Your task to perform on an android device: Open Yahoo.com Image 0: 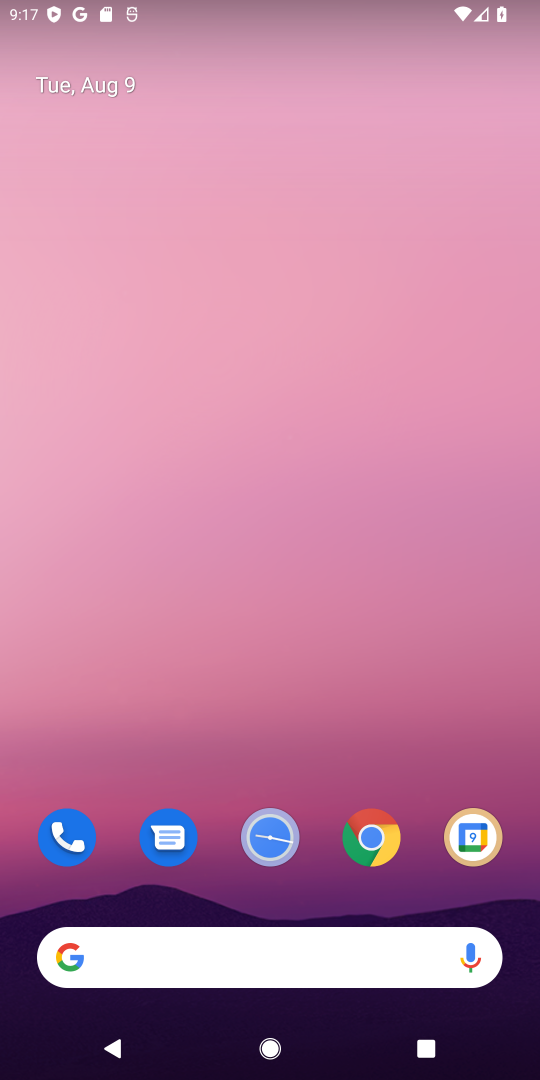
Step 0: click (374, 832)
Your task to perform on an android device: Open Yahoo.com Image 1: 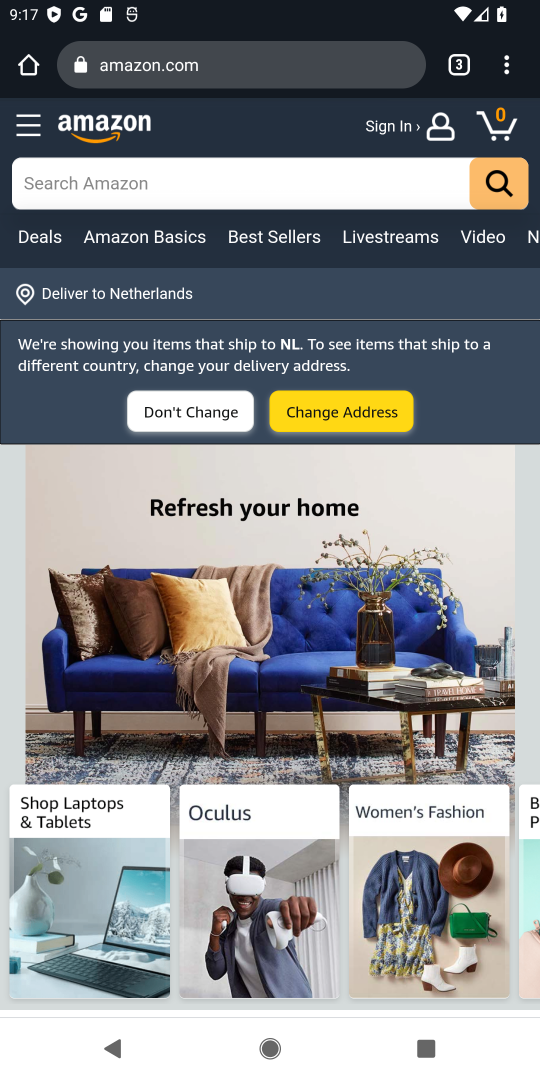
Step 1: click (508, 74)
Your task to perform on an android device: Open Yahoo.com Image 2: 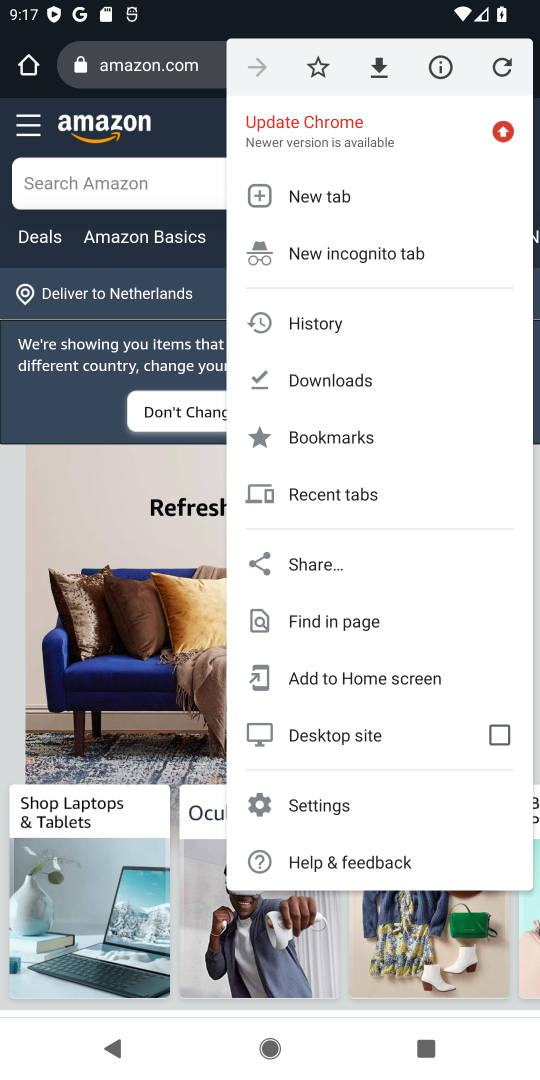
Step 2: click (326, 189)
Your task to perform on an android device: Open Yahoo.com Image 3: 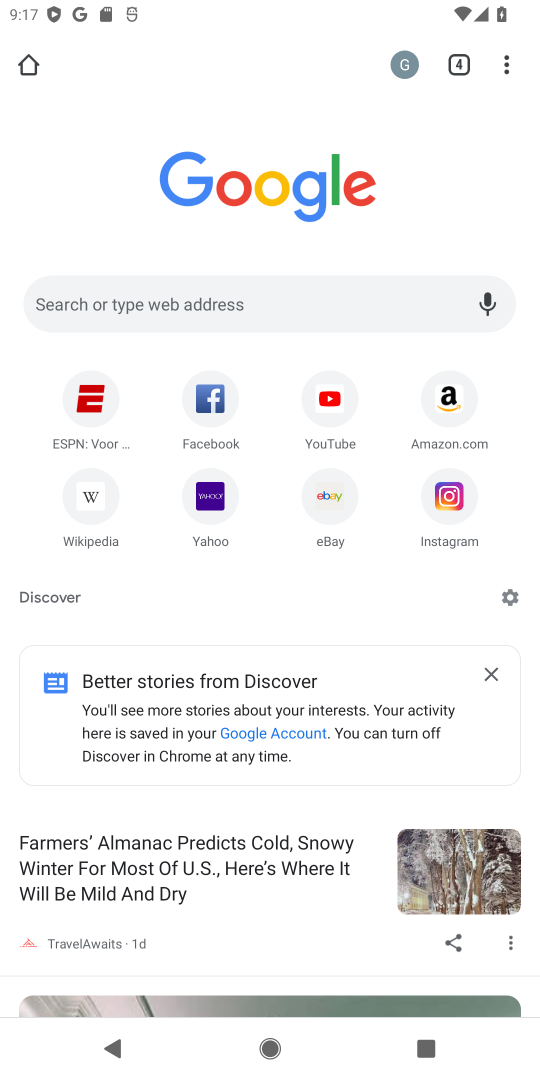
Step 3: click (199, 494)
Your task to perform on an android device: Open Yahoo.com Image 4: 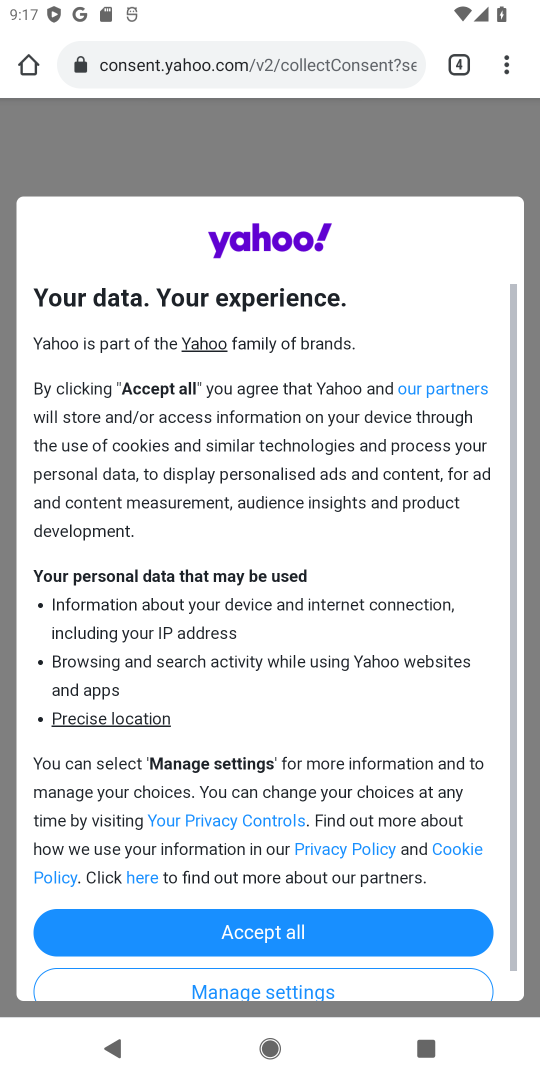
Step 4: click (267, 934)
Your task to perform on an android device: Open Yahoo.com Image 5: 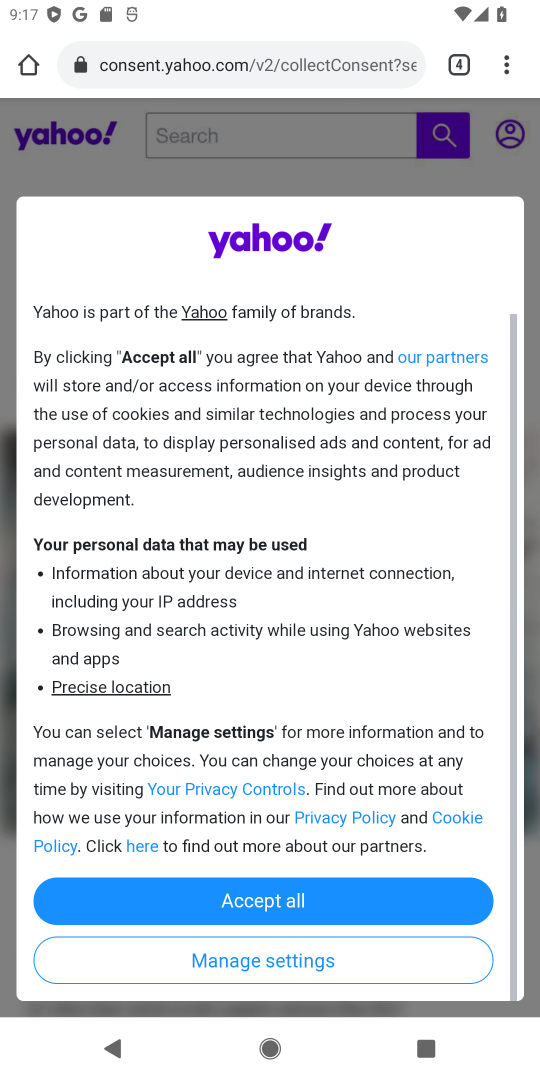
Step 5: click (282, 895)
Your task to perform on an android device: Open Yahoo.com Image 6: 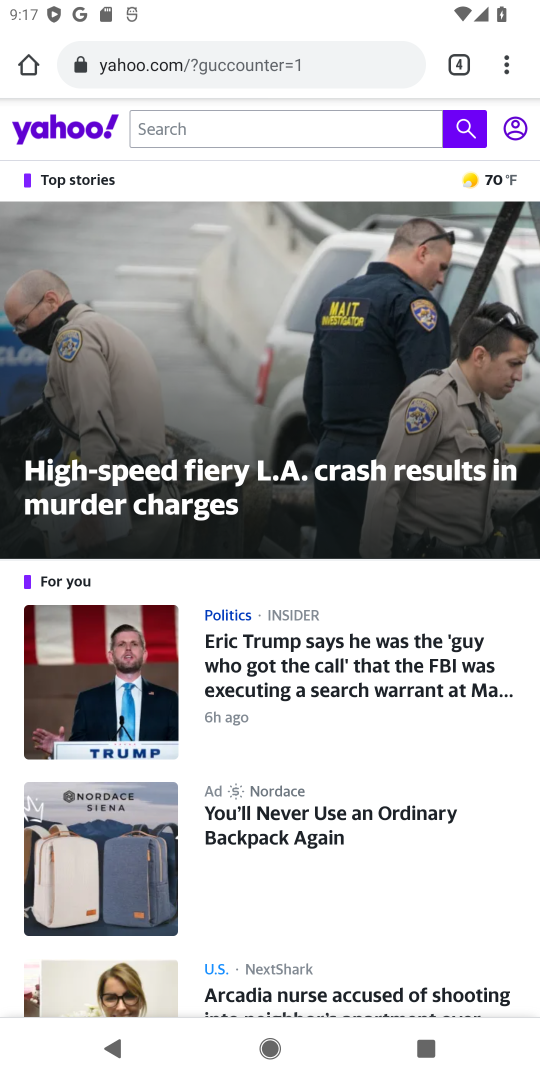
Step 6: task complete